Your task to perform on an android device: Open my contact list Image 0: 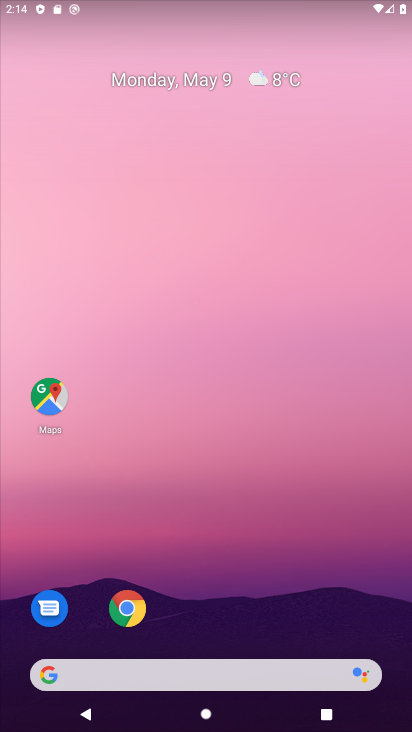
Step 0: drag from (185, 534) to (208, 240)
Your task to perform on an android device: Open my contact list Image 1: 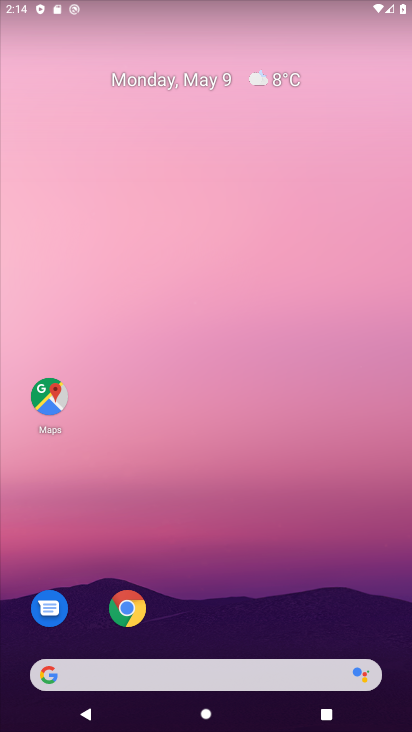
Step 1: drag from (192, 630) to (197, 130)
Your task to perform on an android device: Open my contact list Image 2: 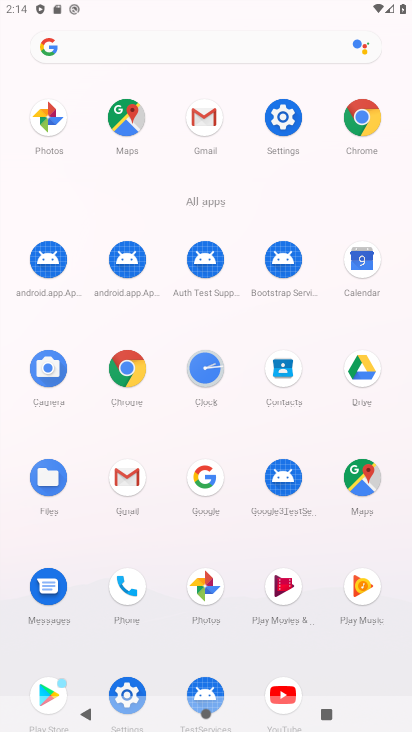
Step 2: click (278, 377)
Your task to perform on an android device: Open my contact list Image 3: 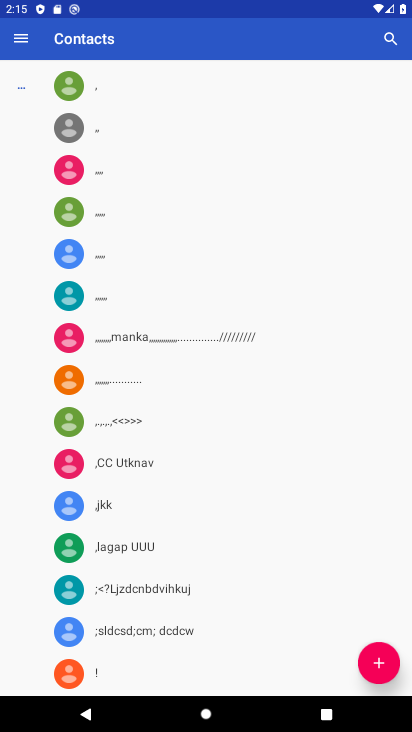
Step 3: task complete